Your task to perform on an android device: allow notifications from all sites in the chrome app Image 0: 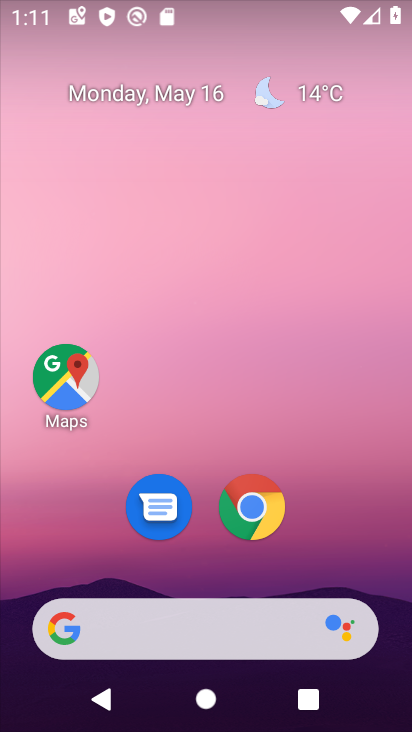
Step 0: click (268, 516)
Your task to perform on an android device: allow notifications from all sites in the chrome app Image 1: 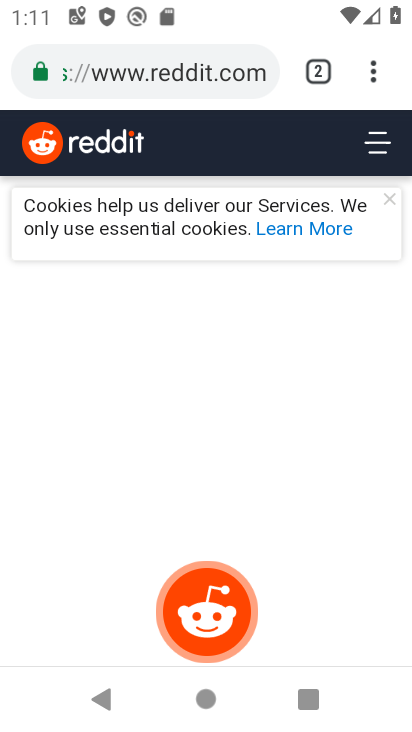
Step 1: click (373, 70)
Your task to perform on an android device: allow notifications from all sites in the chrome app Image 2: 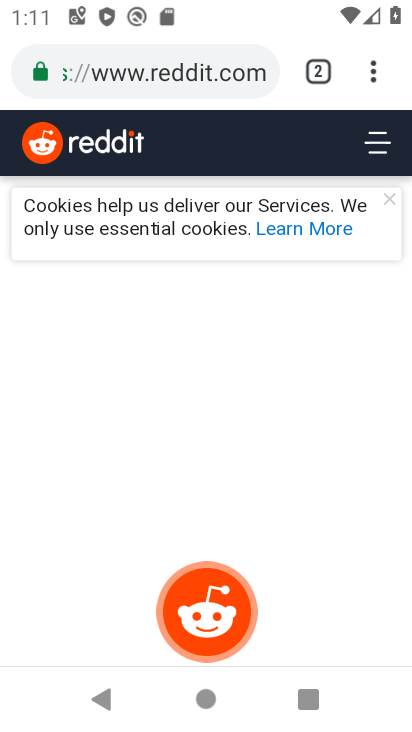
Step 2: click (372, 71)
Your task to perform on an android device: allow notifications from all sites in the chrome app Image 3: 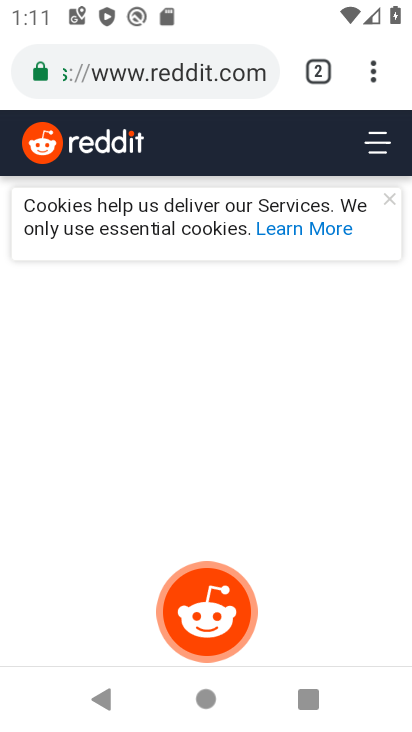
Step 3: click (372, 68)
Your task to perform on an android device: allow notifications from all sites in the chrome app Image 4: 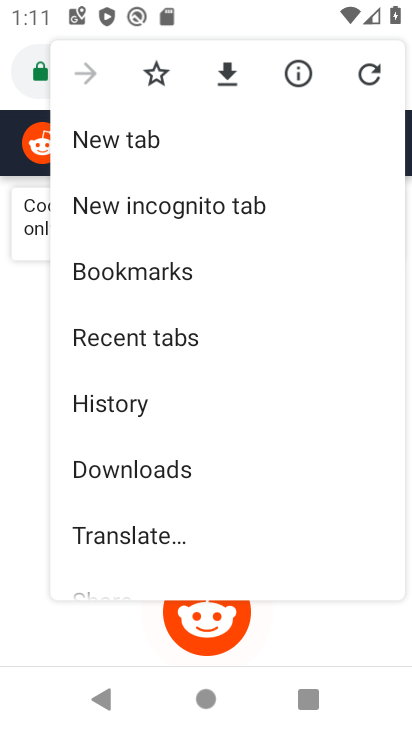
Step 4: drag from (186, 528) to (338, 96)
Your task to perform on an android device: allow notifications from all sites in the chrome app Image 5: 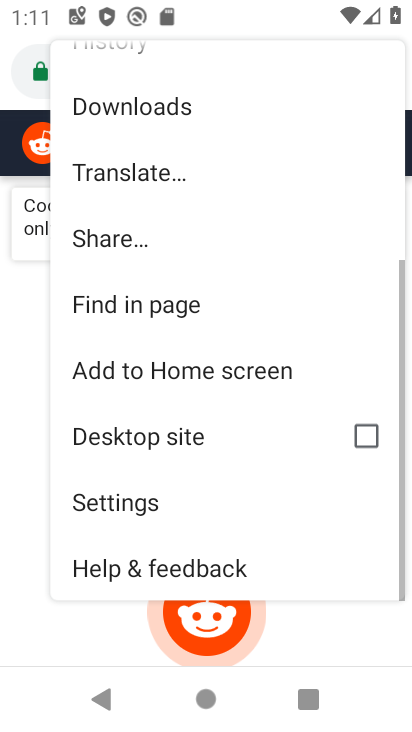
Step 5: click (180, 496)
Your task to perform on an android device: allow notifications from all sites in the chrome app Image 6: 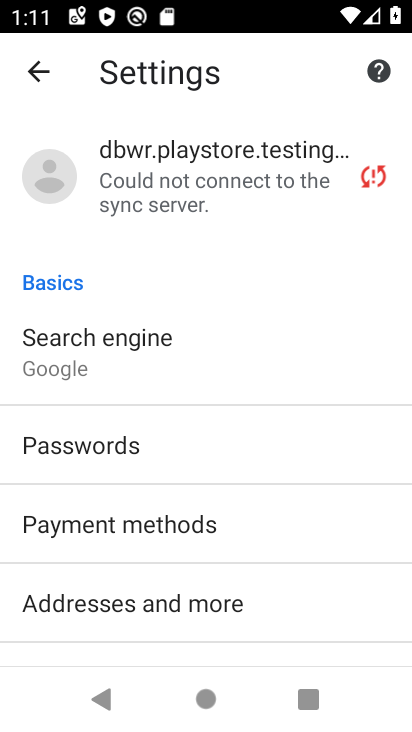
Step 6: drag from (205, 601) to (330, 215)
Your task to perform on an android device: allow notifications from all sites in the chrome app Image 7: 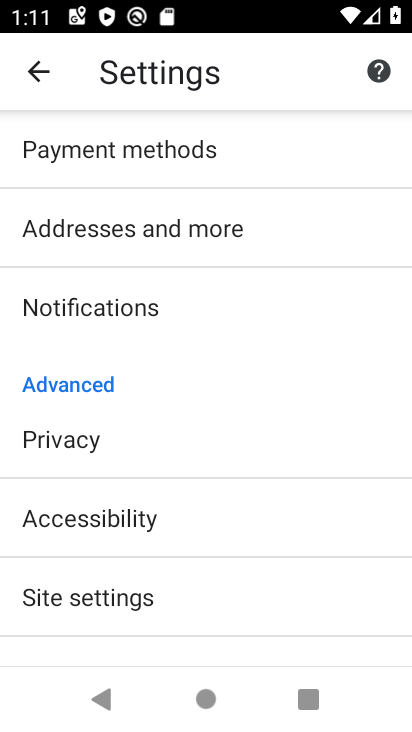
Step 7: click (178, 300)
Your task to perform on an android device: allow notifications from all sites in the chrome app Image 8: 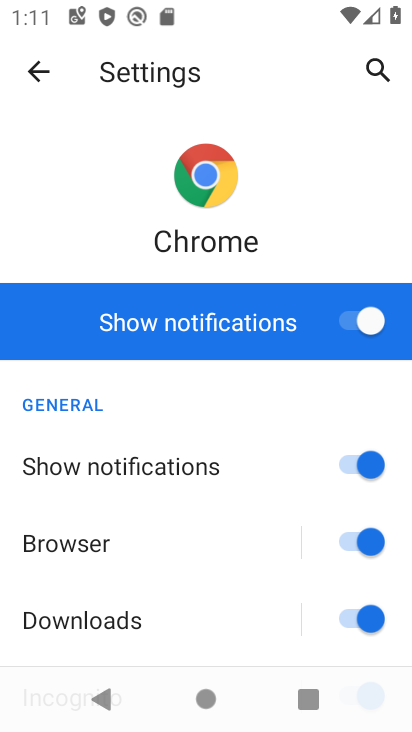
Step 8: click (376, 331)
Your task to perform on an android device: allow notifications from all sites in the chrome app Image 9: 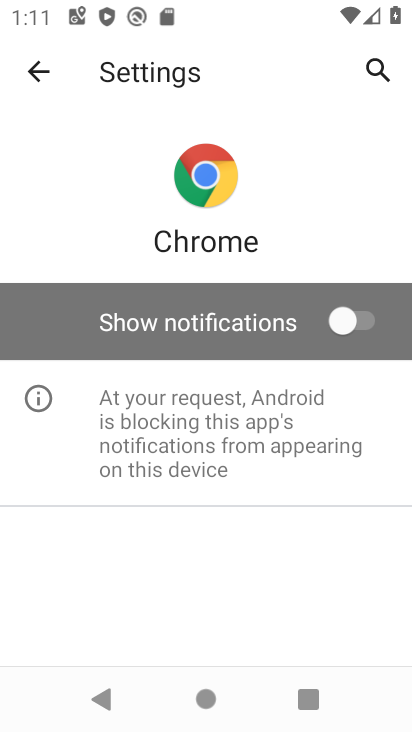
Step 9: task complete